Your task to perform on an android device: What's the weather? Image 0: 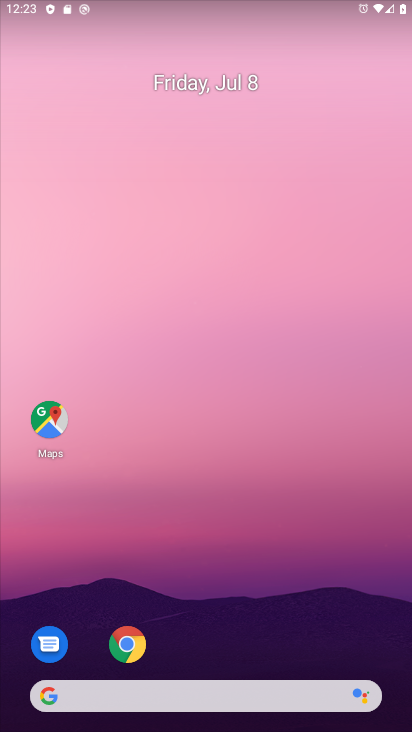
Step 0: drag from (183, 686) to (175, 16)
Your task to perform on an android device: What's the weather? Image 1: 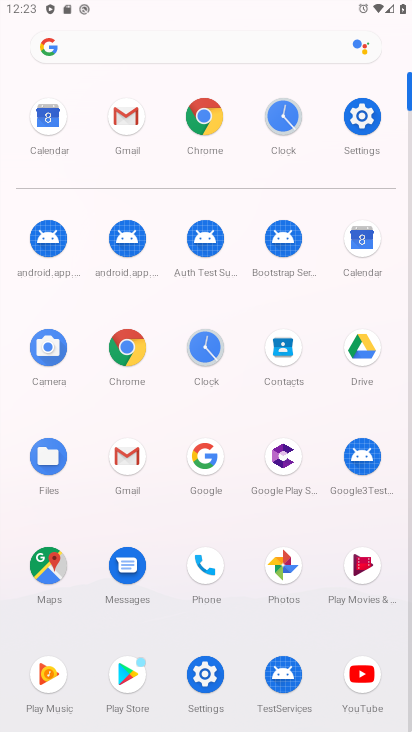
Step 1: click (183, 120)
Your task to perform on an android device: What's the weather? Image 2: 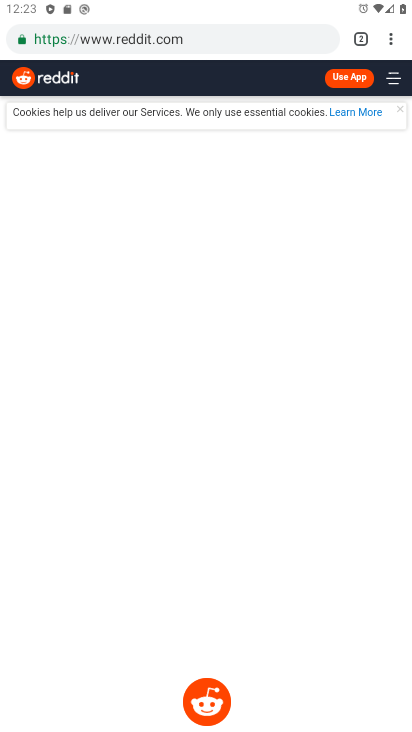
Step 2: click (224, 37)
Your task to perform on an android device: What's the weather? Image 3: 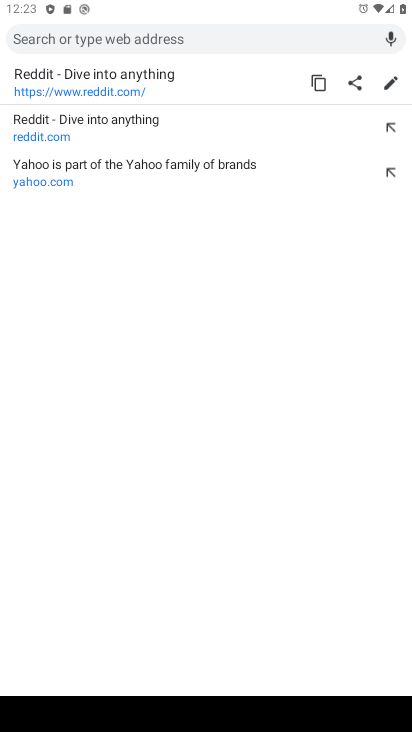
Step 3: type "weather"
Your task to perform on an android device: What's the weather? Image 4: 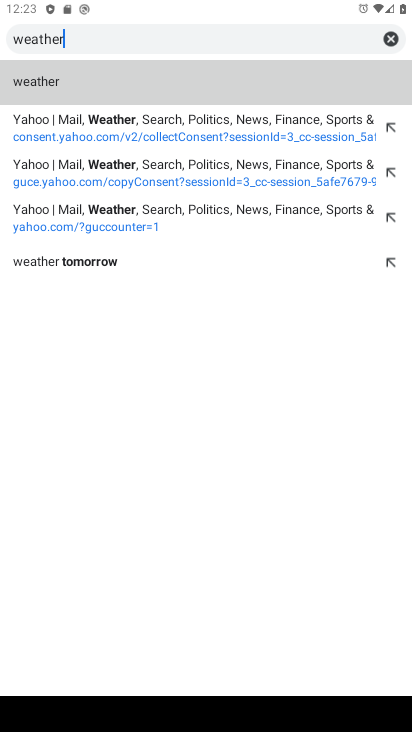
Step 4: click (203, 80)
Your task to perform on an android device: What's the weather? Image 5: 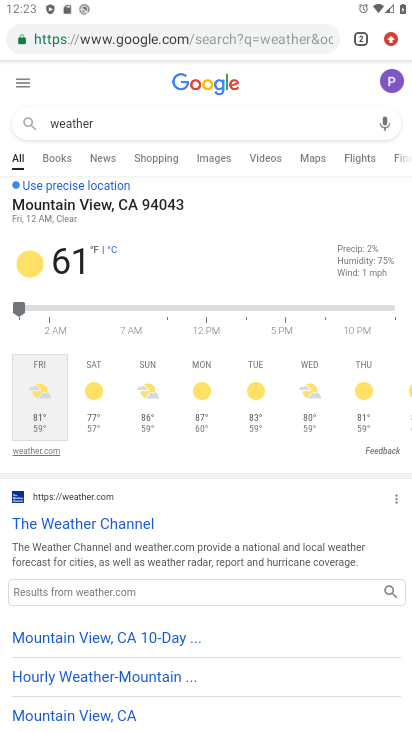
Step 5: task complete